Your task to perform on an android device: check data usage Image 0: 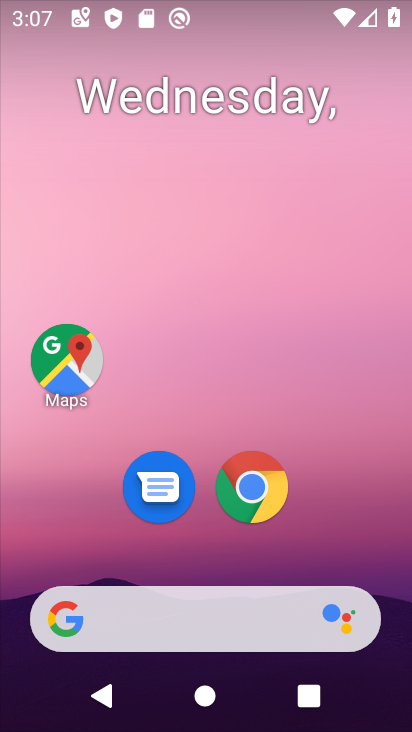
Step 0: drag from (310, 532) to (258, 67)
Your task to perform on an android device: check data usage Image 1: 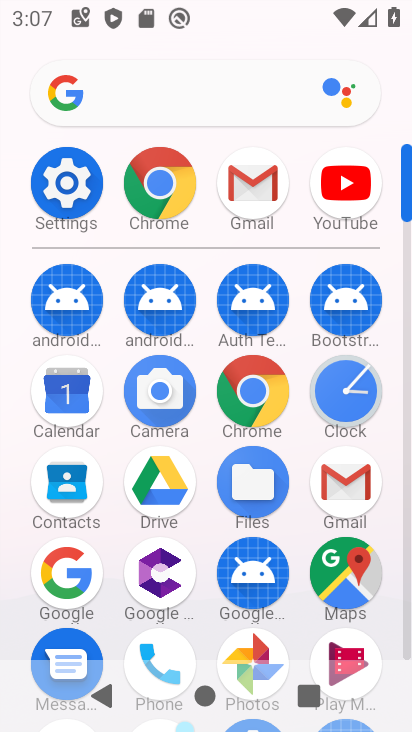
Step 1: click (86, 190)
Your task to perform on an android device: check data usage Image 2: 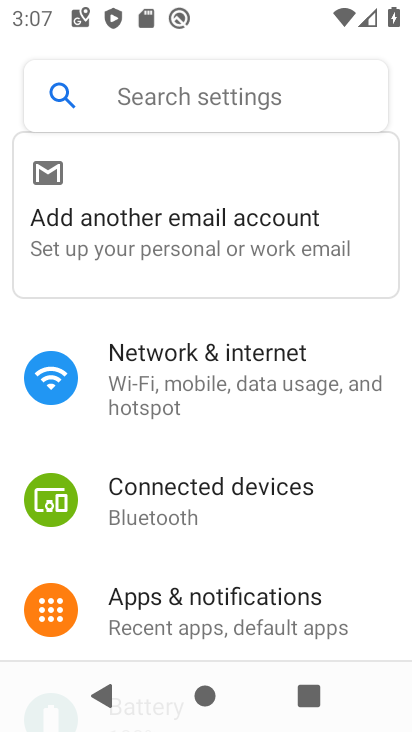
Step 2: click (241, 355)
Your task to perform on an android device: check data usage Image 3: 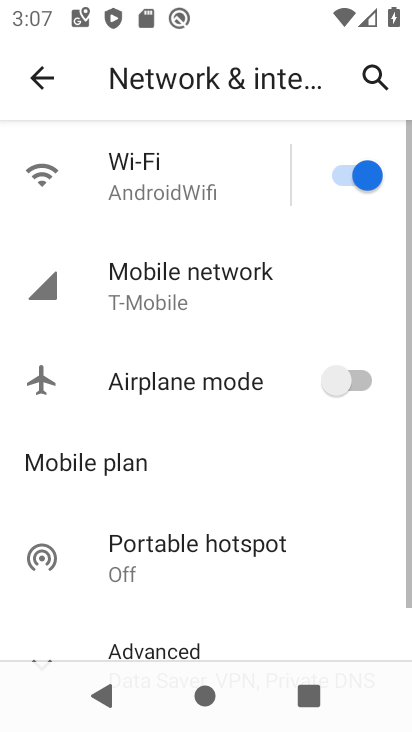
Step 3: click (231, 285)
Your task to perform on an android device: check data usage Image 4: 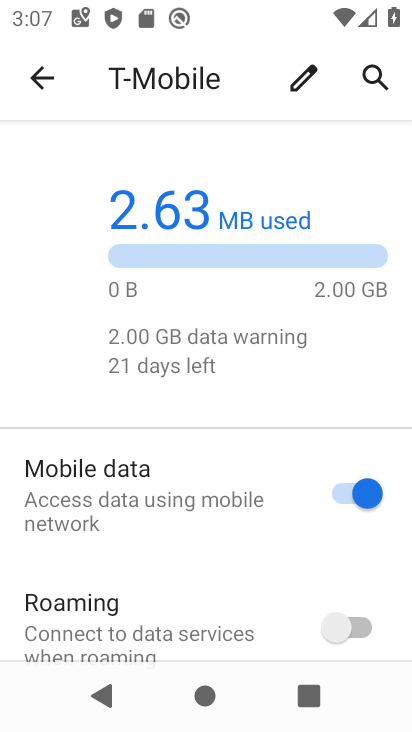
Step 4: task complete